Your task to perform on an android device: turn off airplane mode Image 0: 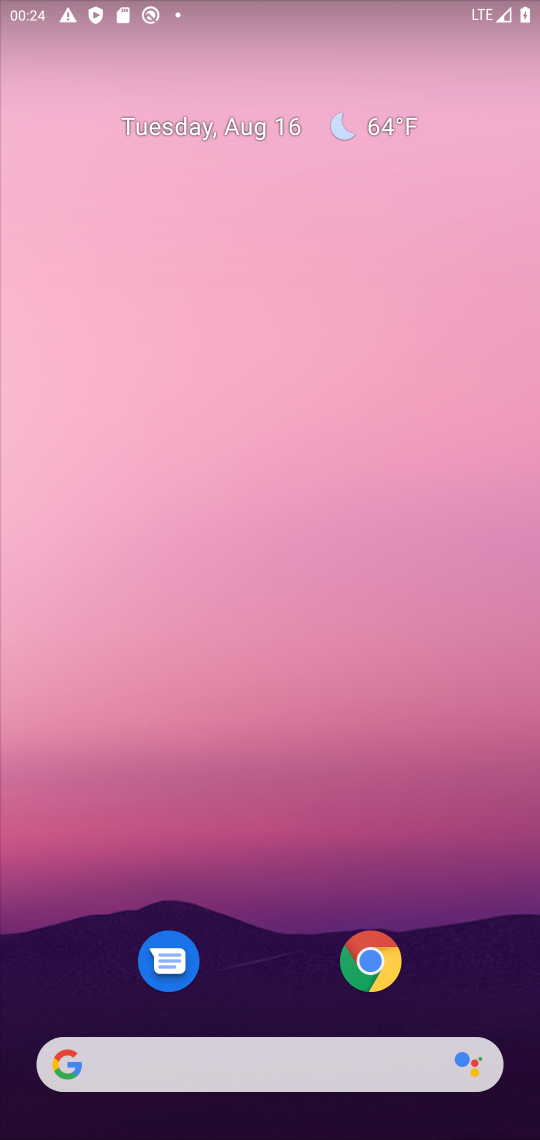
Step 0: press home button
Your task to perform on an android device: turn off airplane mode Image 1: 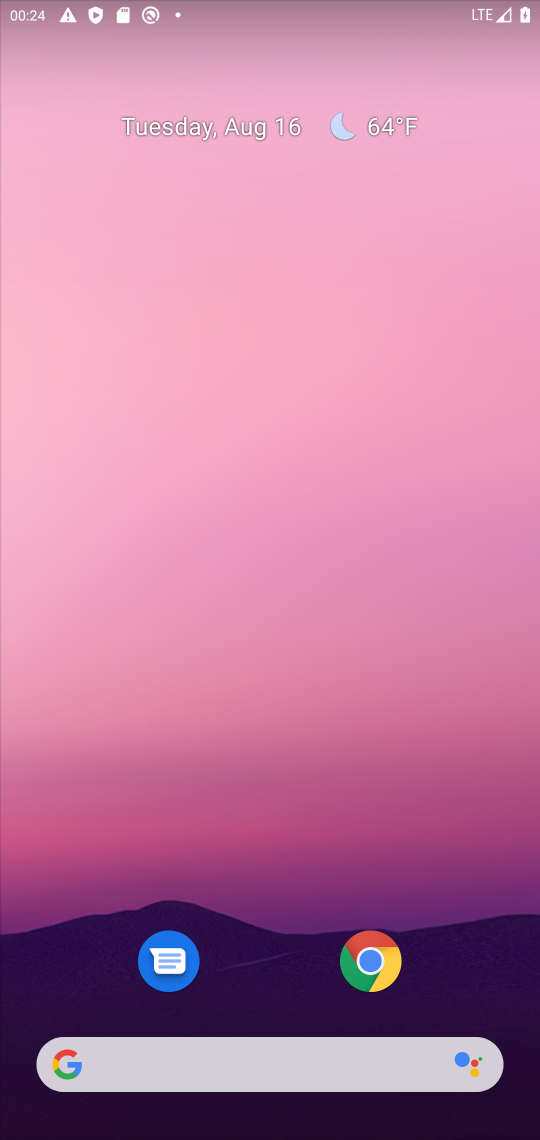
Step 1: drag from (489, 10) to (317, 976)
Your task to perform on an android device: turn off airplane mode Image 2: 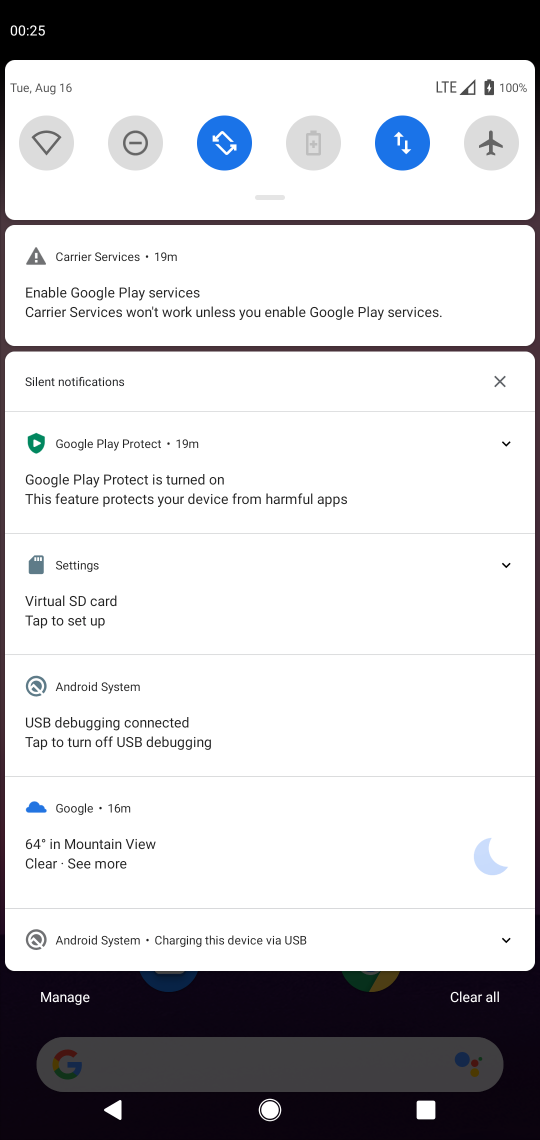
Step 2: click (488, 137)
Your task to perform on an android device: turn off airplane mode Image 3: 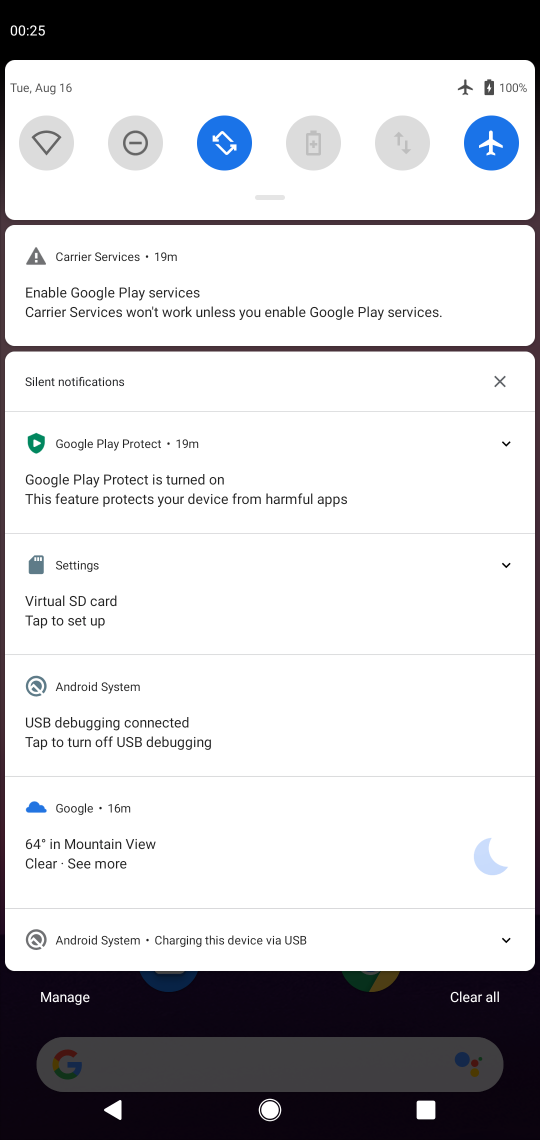
Step 3: task complete